Your task to perform on an android device: move an email to a new category in the gmail app Image 0: 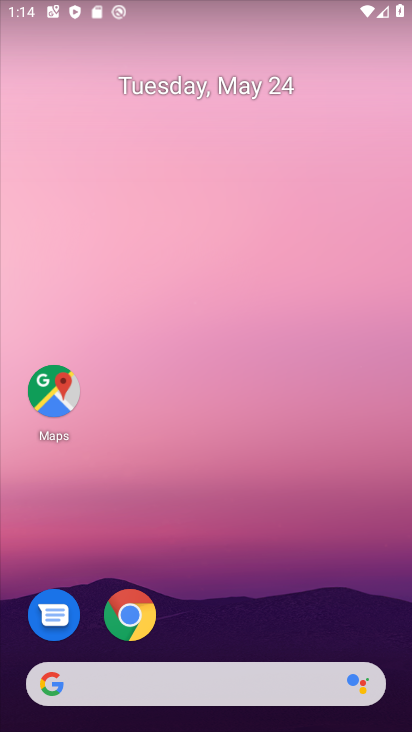
Step 0: drag from (247, 664) to (234, 151)
Your task to perform on an android device: move an email to a new category in the gmail app Image 1: 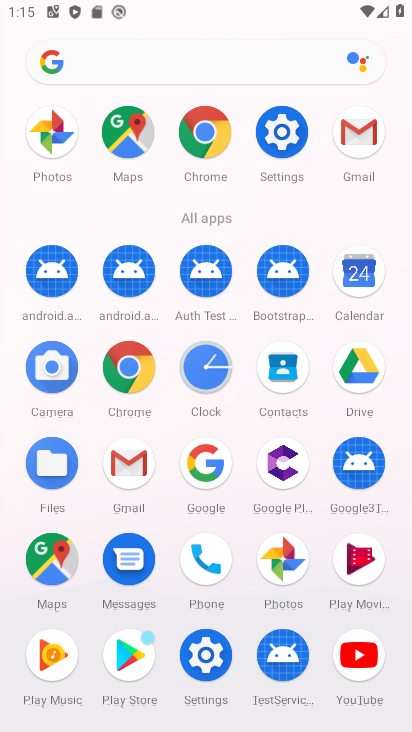
Step 1: click (118, 449)
Your task to perform on an android device: move an email to a new category in the gmail app Image 2: 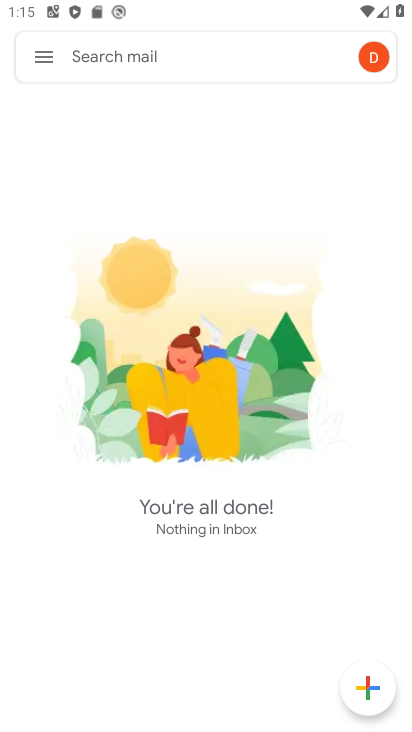
Step 2: click (40, 62)
Your task to perform on an android device: move an email to a new category in the gmail app Image 3: 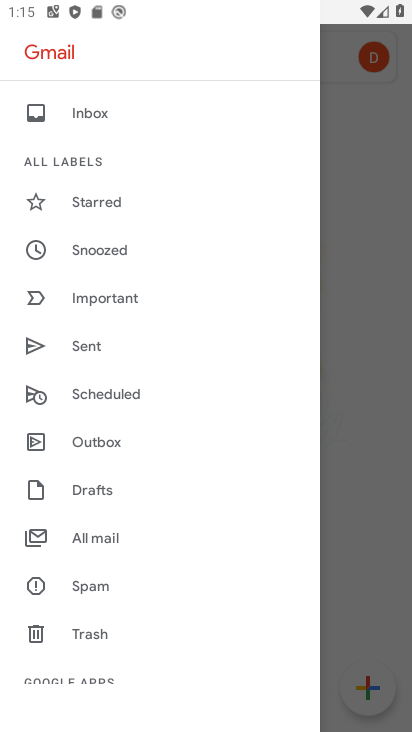
Step 3: click (130, 540)
Your task to perform on an android device: move an email to a new category in the gmail app Image 4: 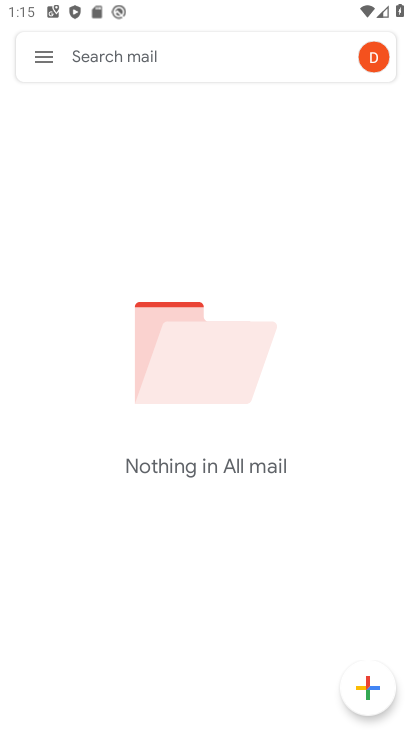
Step 4: task complete